Your task to perform on an android device: visit the assistant section in the google photos Image 0: 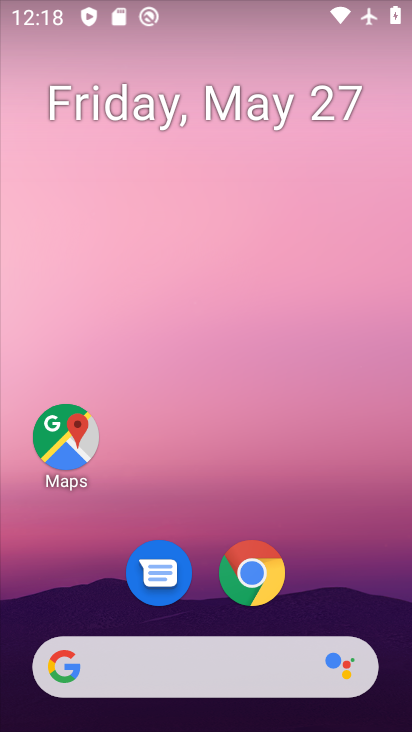
Step 0: drag from (327, 436) to (354, 150)
Your task to perform on an android device: visit the assistant section in the google photos Image 1: 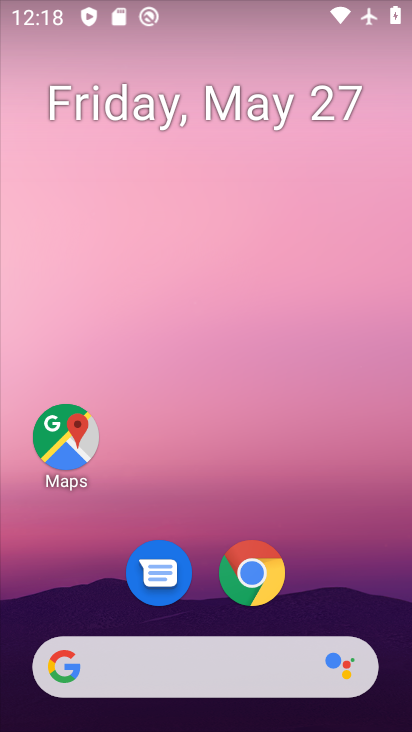
Step 1: drag from (352, 451) to (371, 125)
Your task to perform on an android device: visit the assistant section in the google photos Image 2: 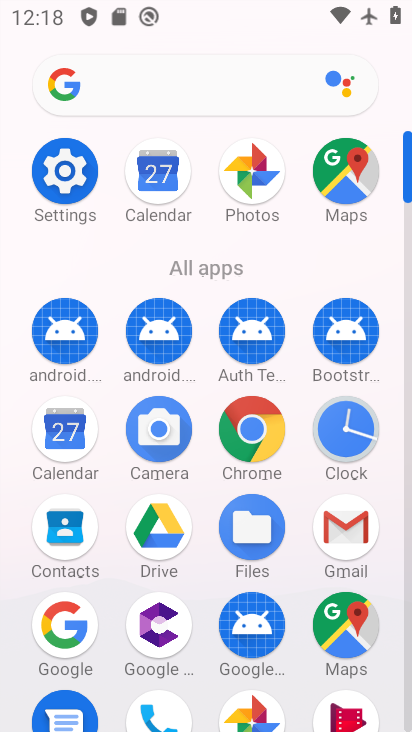
Step 2: click (262, 177)
Your task to perform on an android device: visit the assistant section in the google photos Image 3: 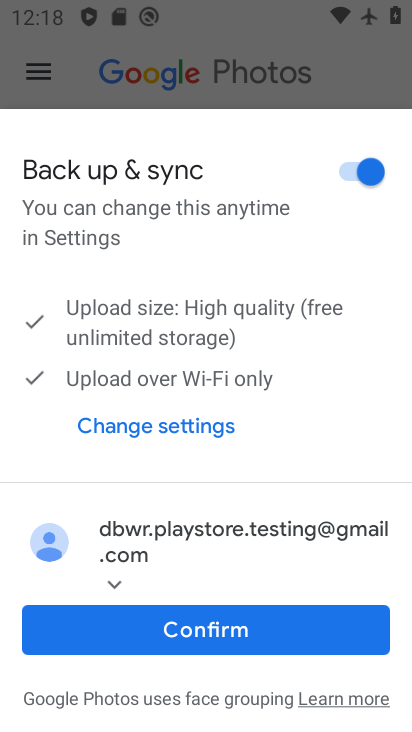
Step 3: click (221, 628)
Your task to perform on an android device: visit the assistant section in the google photos Image 4: 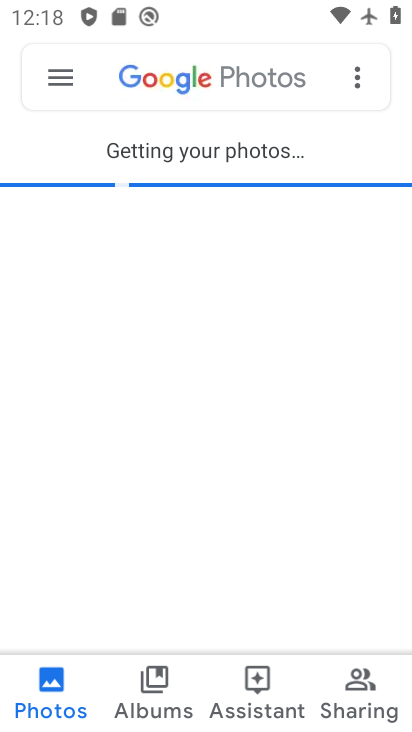
Step 4: click (244, 682)
Your task to perform on an android device: visit the assistant section in the google photos Image 5: 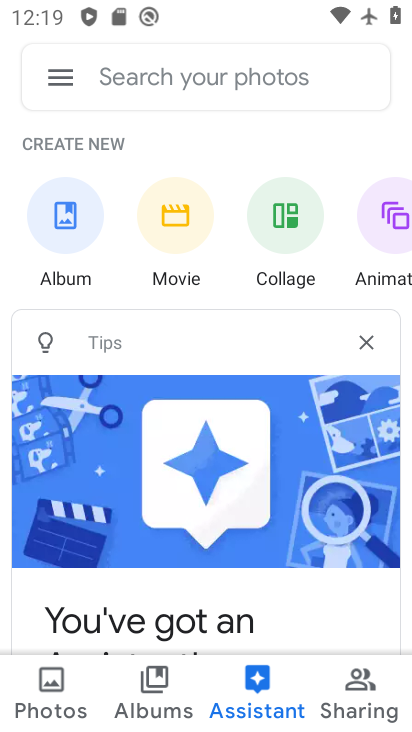
Step 5: task complete